Your task to perform on an android device: Show me the alarms in the clock app Image 0: 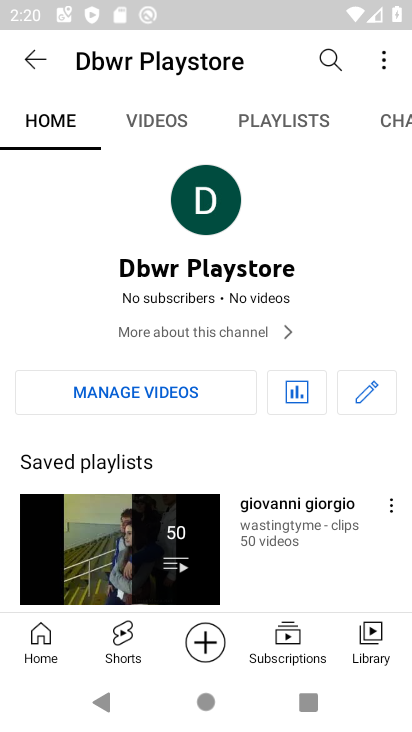
Step 0: press home button
Your task to perform on an android device: Show me the alarms in the clock app Image 1: 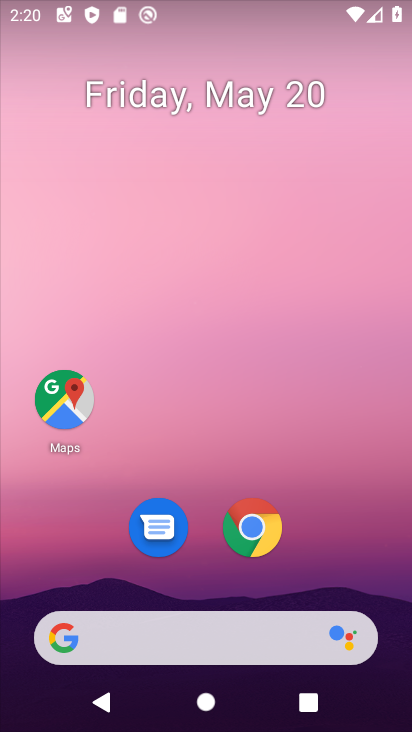
Step 1: drag from (171, 693) to (221, 222)
Your task to perform on an android device: Show me the alarms in the clock app Image 2: 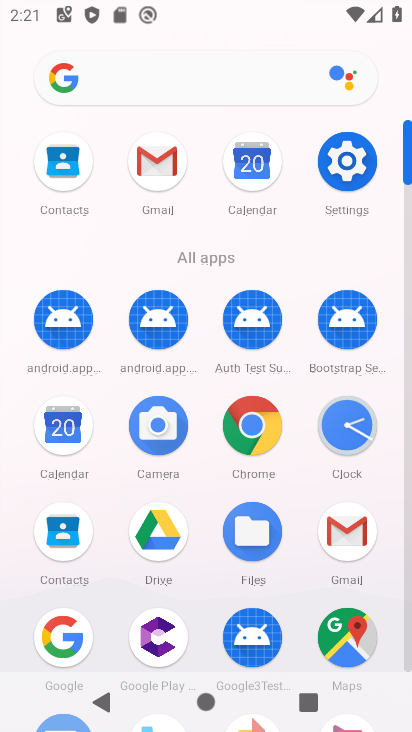
Step 2: click (338, 411)
Your task to perform on an android device: Show me the alarms in the clock app Image 3: 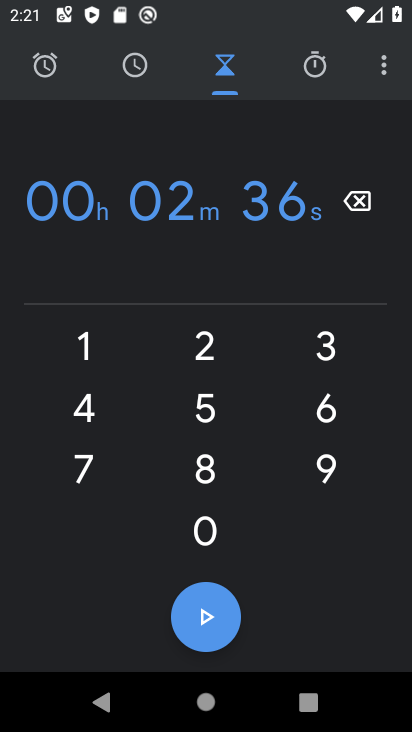
Step 3: click (45, 65)
Your task to perform on an android device: Show me the alarms in the clock app Image 4: 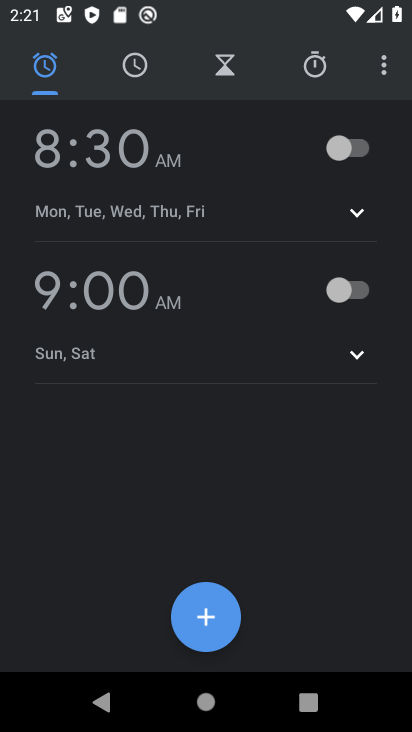
Step 4: task complete